Your task to perform on an android device: Search for Mexican restaurants on Maps Image 0: 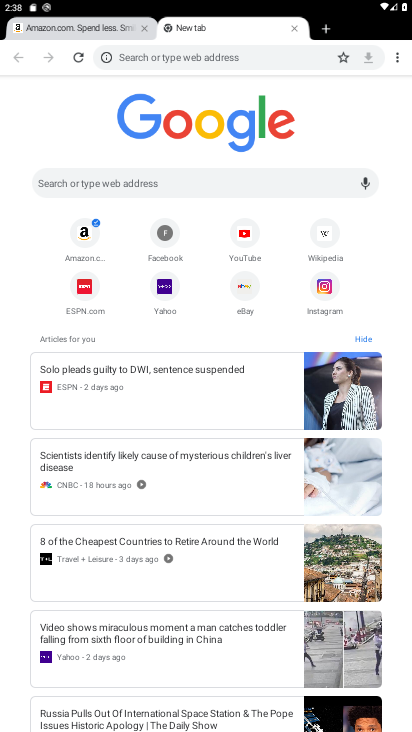
Step 0: press home button
Your task to perform on an android device: Search for Mexican restaurants on Maps Image 1: 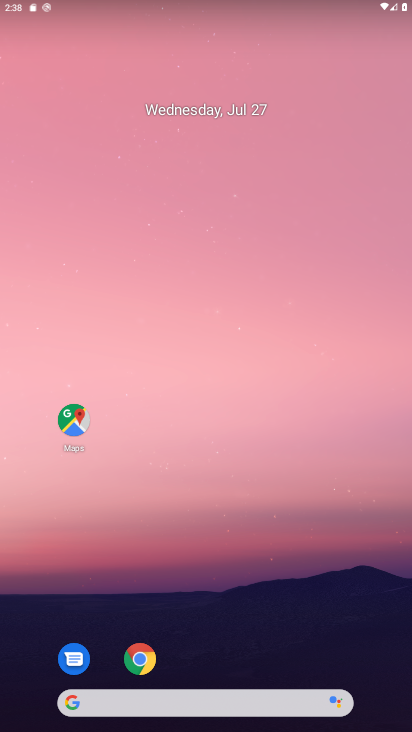
Step 1: drag from (248, 544) to (287, 87)
Your task to perform on an android device: Search for Mexican restaurants on Maps Image 2: 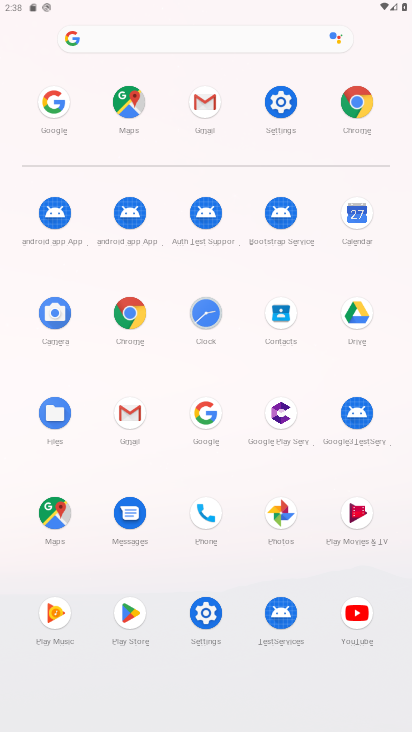
Step 2: click (57, 528)
Your task to perform on an android device: Search for Mexican restaurants on Maps Image 3: 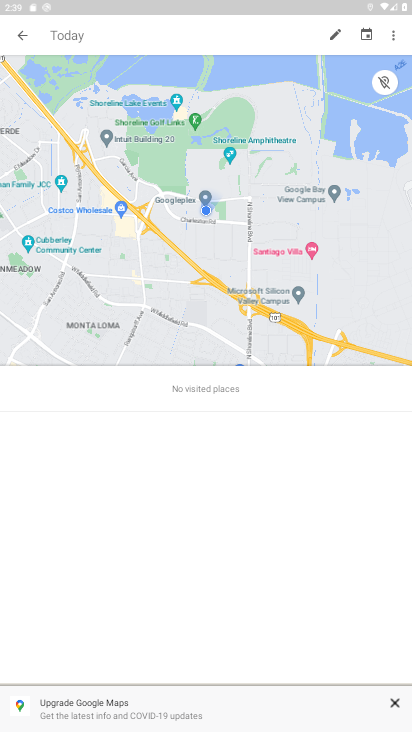
Step 3: click (19, 31)
Your task to perform on an android device: Search for Mexican restaurants on Maps Image 4: 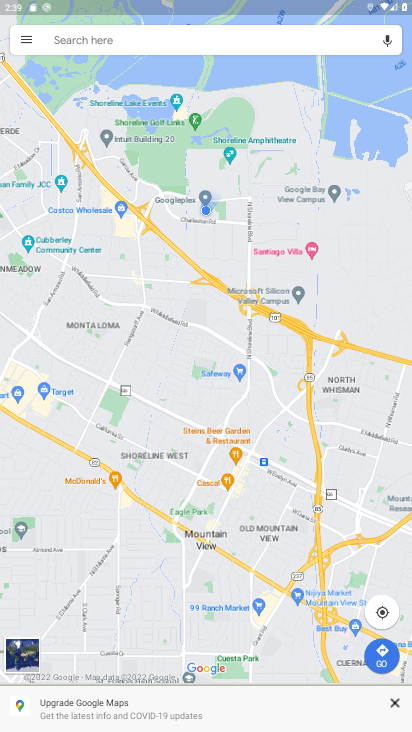
Step 4: click (125, 44)
Your task to perform on an android device: Search for Mexican restaurants on Maps Image 5: 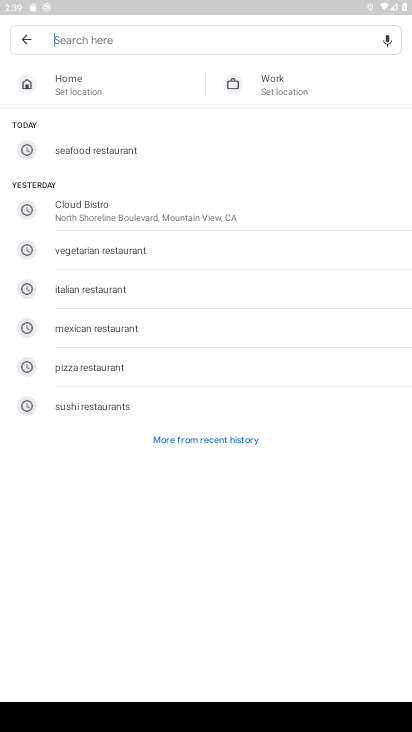
Step 5: click (126, 322)
Your task to perform on an android device: Search for Mexican restaurants on Maps Image 6: 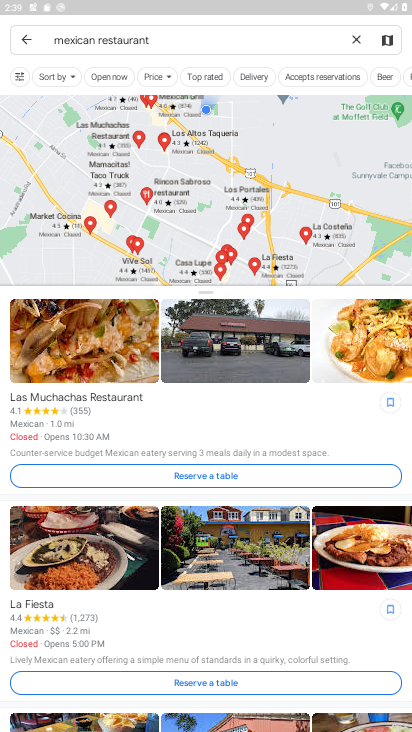
Step 6: task complete